Your task to perform on an android device: Open privacy settings Image 0: 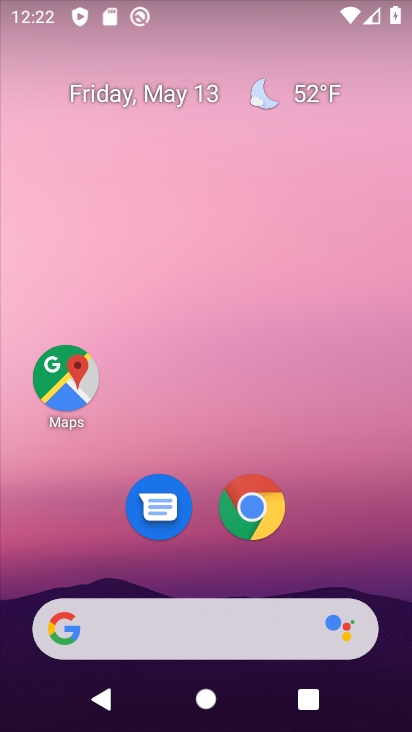
Step 0: drag from (176, 597) to (248, 190)
Your task to perform on an android device: Open privacy settings Image 1: 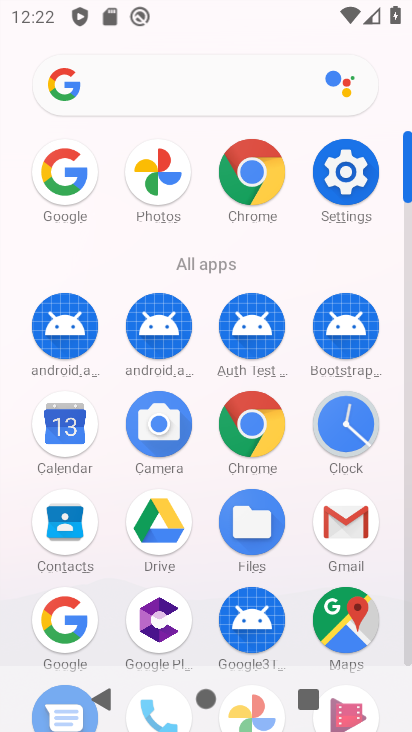
Step 1: click (361, 169)
Your task to perform on an android device: Open privacy settings Image 2: 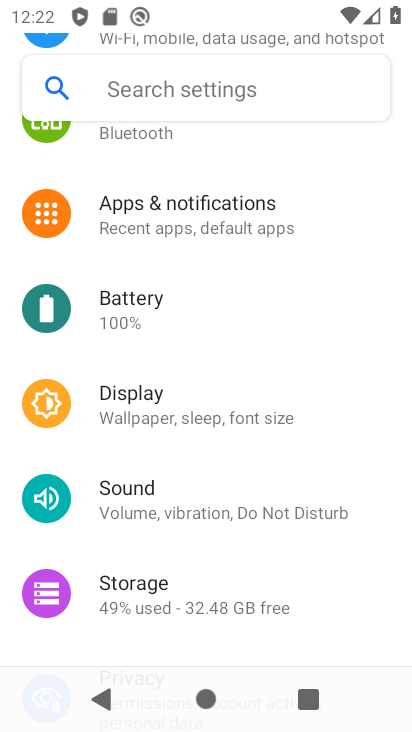
Step 2: drag from (164, 621) to (198, 252)
Your task to perform on an android device: Open privacy settings Image 3: 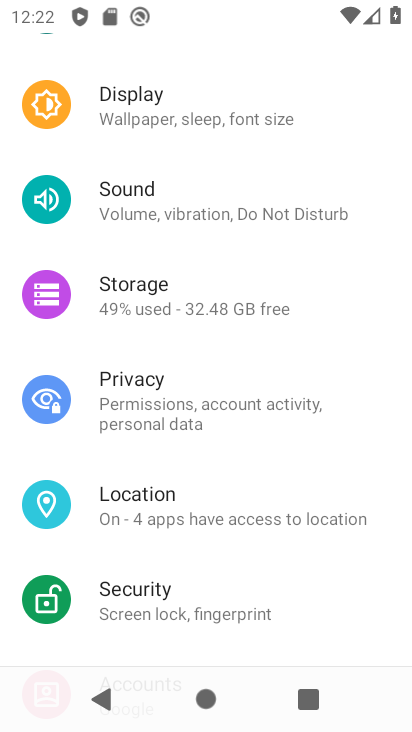
Step 3: click (164, 402)
Your task to perform on an android device: Open privacy settings Image 4: 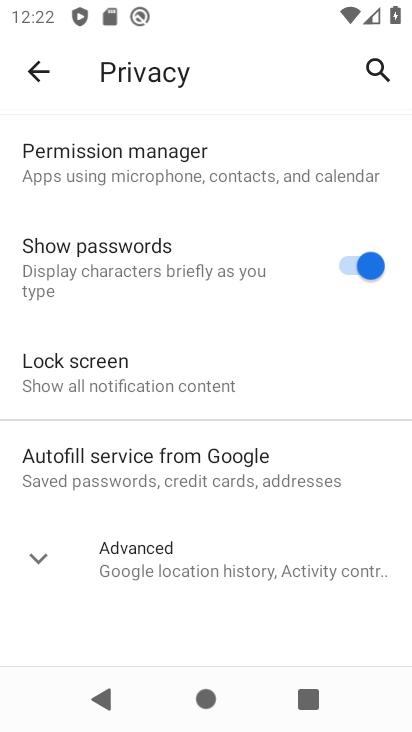
Step 4: click (184, 568)
Your task to perform on an android device: Open privacy settings Image 5: 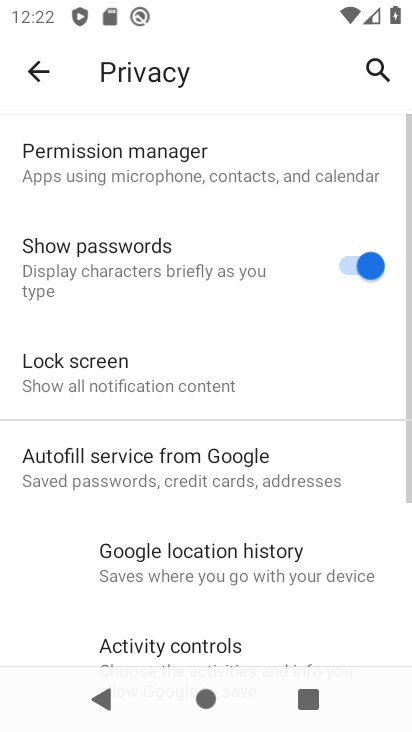
Step 5: task complete